Your task to perform on an android device: visit the assistant section in the google photos Image 0: 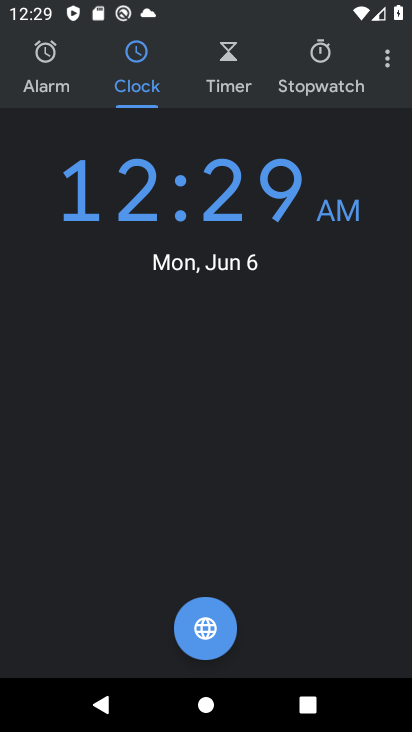
Step 0: press home button
Your task to perform on an android device: visit the assistant section in the google photos Image 1: 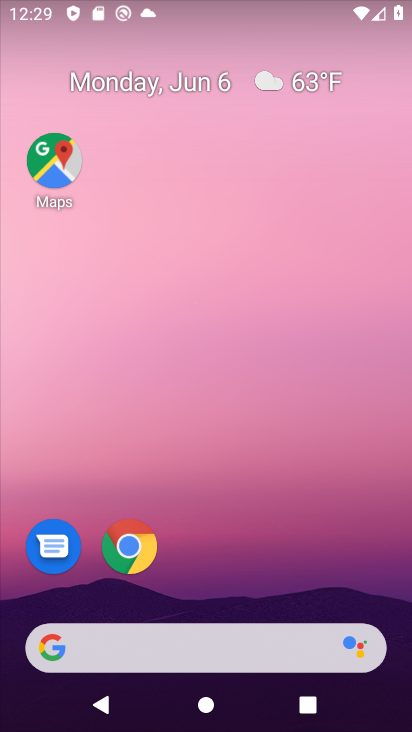
Step 1: drag from (200, 618) to (136, 71)
Your task to perform on an android device: visit the assistant section in the google photos Image 2: 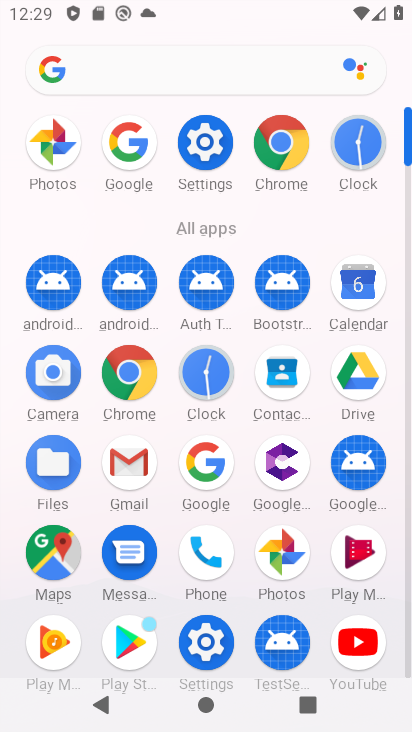
Step 2: click (296, 574)
Your task to perform on an android device: visit the assistant section in the google photos Image 3: 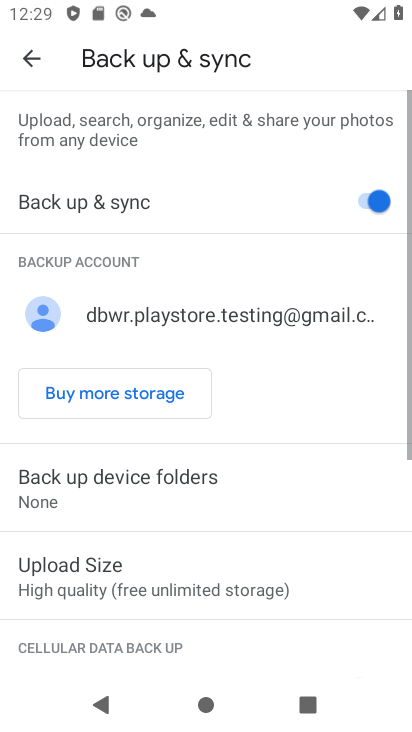
Step 3: click (35, 67)
Your task to perform on an android device: visit the assistant section in the google photos Image 4: 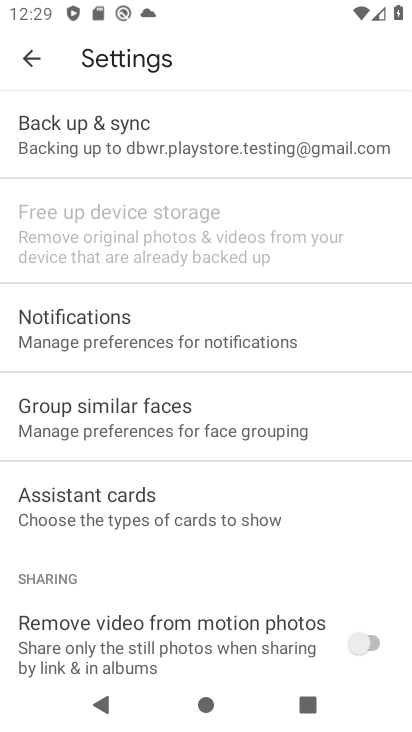
Step 4: click (37, 54)
Your task to perform on an android device: visit the assistant section in the google photos Image 5: 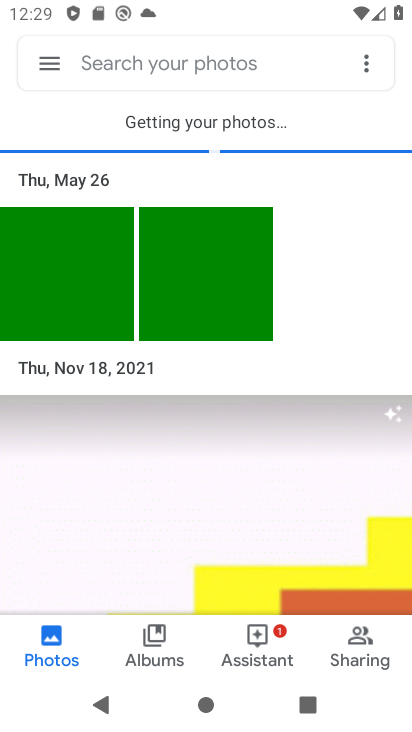
Step 5: click (262, 654)
Your task to perform on an android device: visit the assistant section in the google photos Image 6: 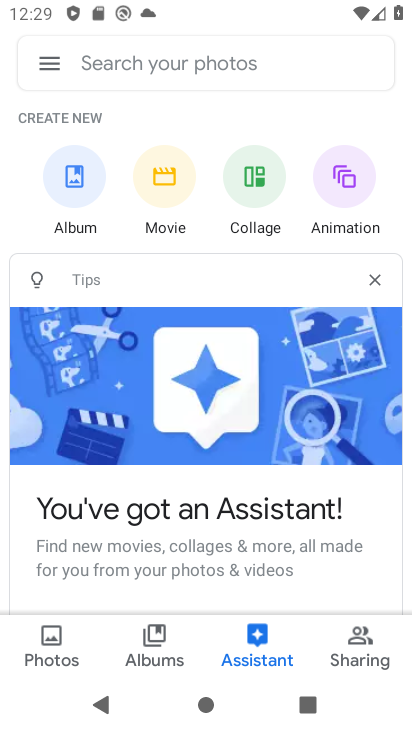
Step 6: task complete